Your task to perform on an android device: check google app version Image 0: 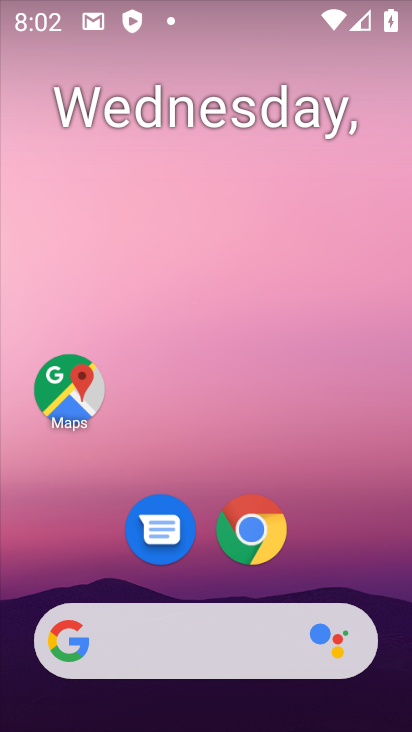
Step 0: drag from (185, 592) to (186, 54)
Your task to perform on an android device: check google app version Image 1: 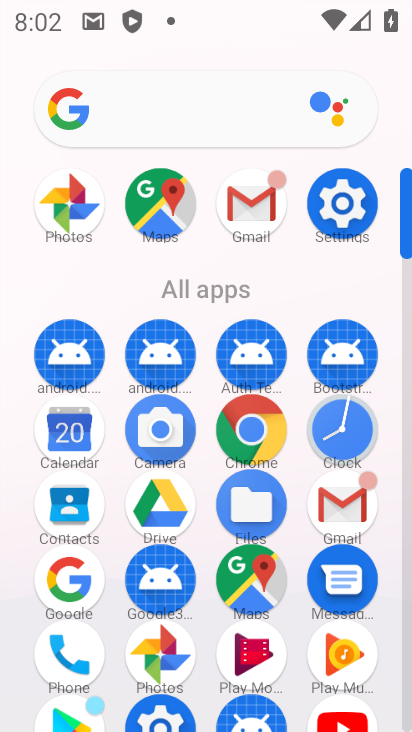
Step 1: click (81, 584)
Your task to perform on an android device: check google app version Image 2: 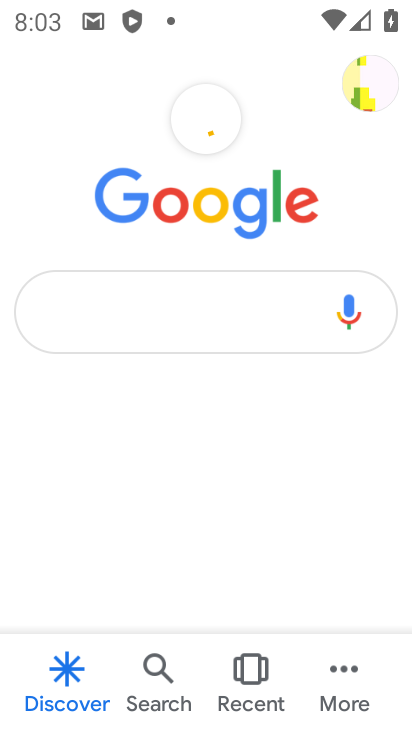
Step 2: click (356, 668)
Your task to perform on an android device: check google app version Image 3: 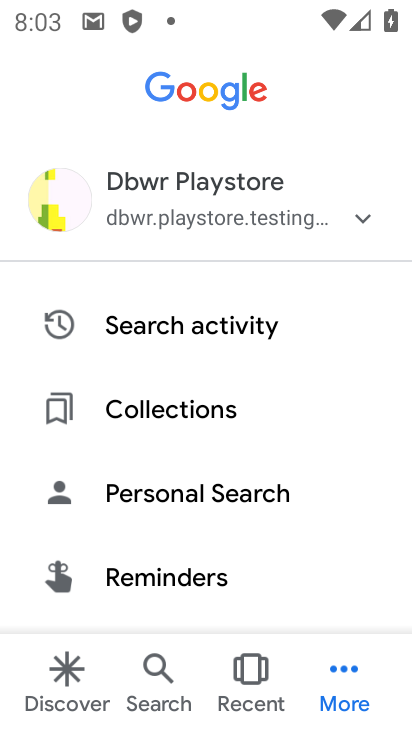
Step 3: drag from (163, 538) to (170, 154)
Your task to perform on an android device: check google app version Image 4: 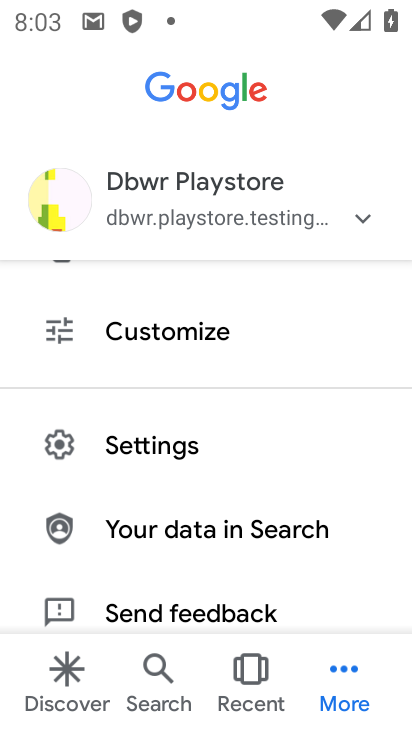
Step 4: click (178, 446)
Your task to perform on an android device: check google app version Image 5: 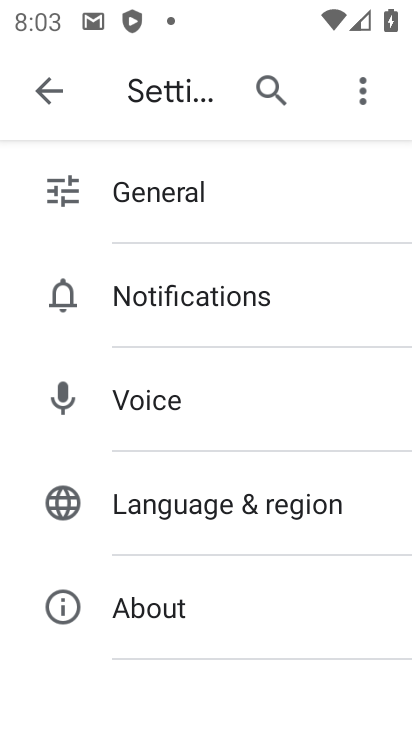
Step 5: click (133, 612)
Your task to perform on an android device: check google app version Image 6: 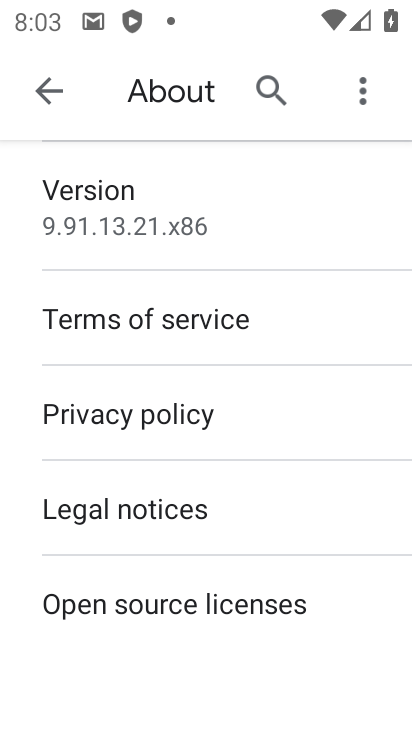
Step 6: click (121, 192)
Your task to perform on an android device: check google app version Image 7: 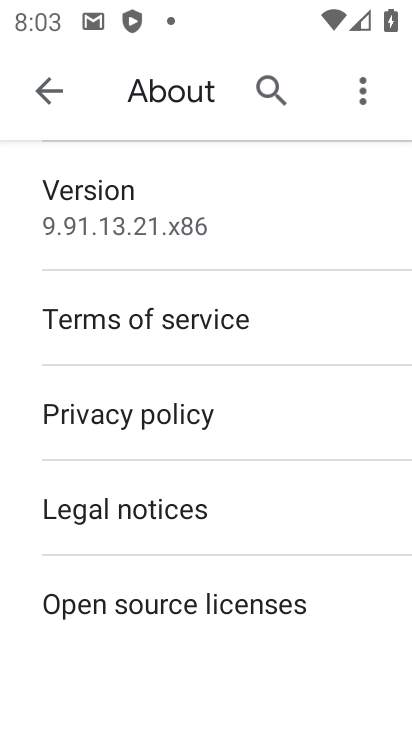
Step 7: task complete